Your task to perform on an android device: turn on bluetooth scan Image 0: 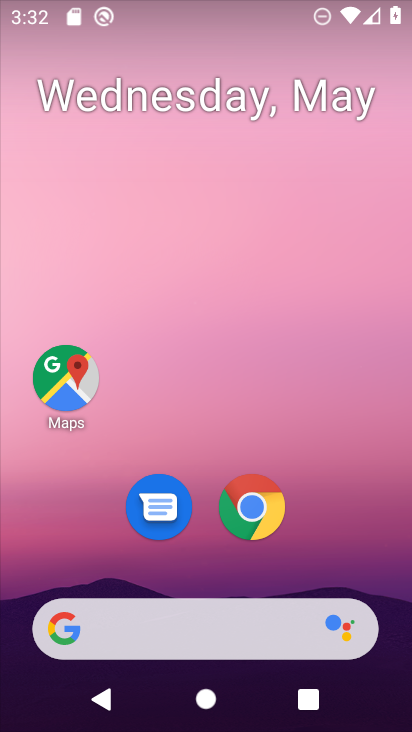
Step 0: drag from (224, 533) to (283, 42)
Your task to perform on an android device: turn on bluetooth scan Image 1: 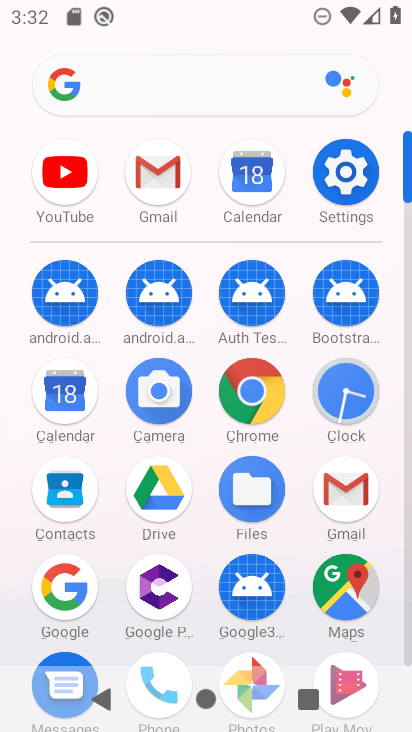
Step 1: click (342, 175)
Your task to perform on an android device: turn on bluetooth scan Image 2: 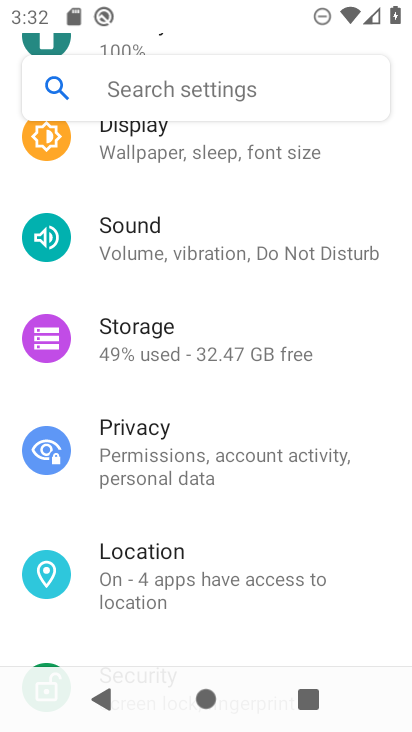
Step 2: drag from (244, 223) to (169, 713)
Your task to perform on an android device: turn on bluetooth scan Image 3: 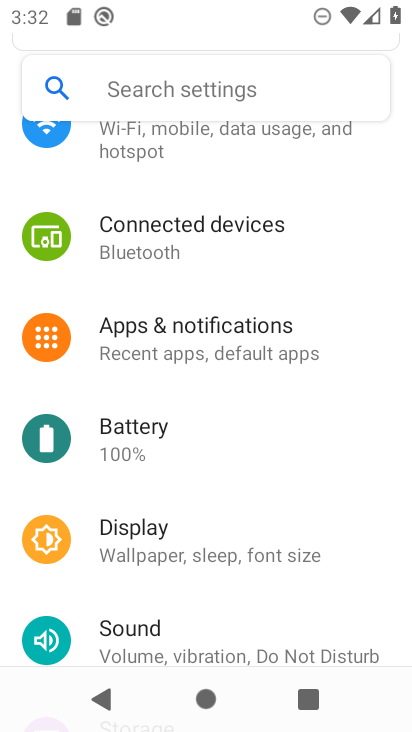
Step 3: click (140, 240)
Your task to perform on an android device: turn on bluetooth scan Image 4: 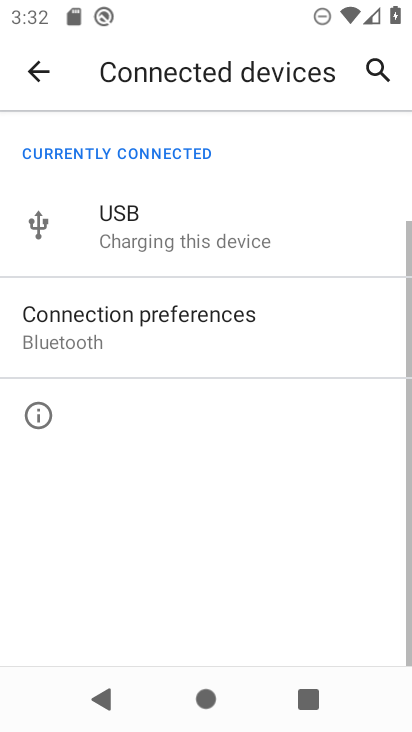
Step 4: click (94, 336)
Your task to perform on an android device: turn on bluetooth scan Image 5: 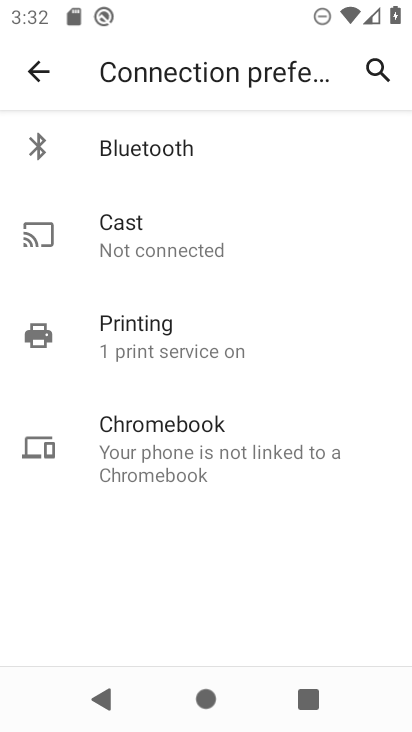
Step 5: click (144, 143)
Your task to perform on an android device: turn on bluetooth scan Image 6: 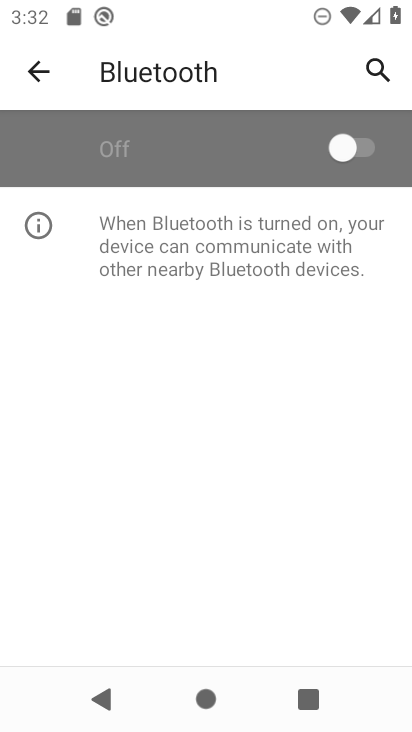
Step 6: task complete